Your task to perform on an android device: move a message to another label in the gmail app Image 0: 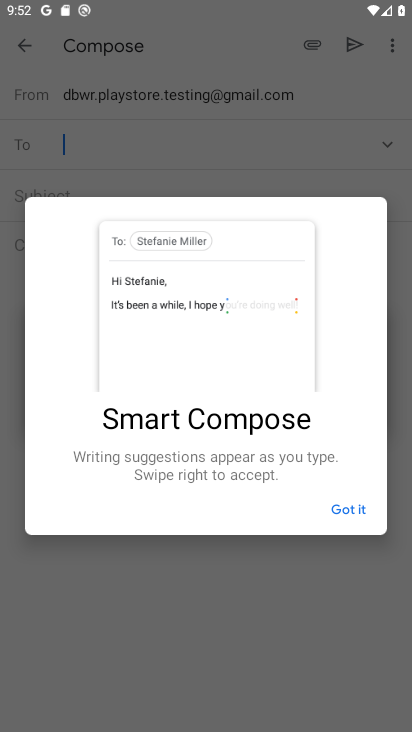
Step 0: press home button
Your task to perform on an android device: move a message to another label in the gmail app Image 1: 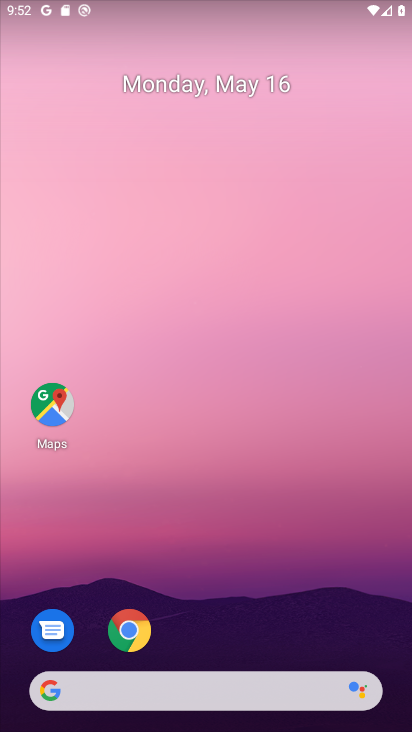
Step 1: drag from (230, 576) to (248, 87)
Your task to perform on an android device: move a message to another label in the gmail app Image 2: 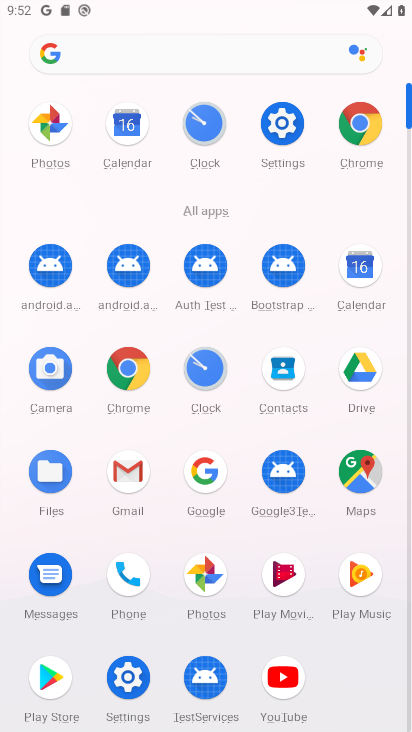
Step 2: click (138, 467)
Your task to perform on an android device: move a message to another label in the gmail app Image 3: 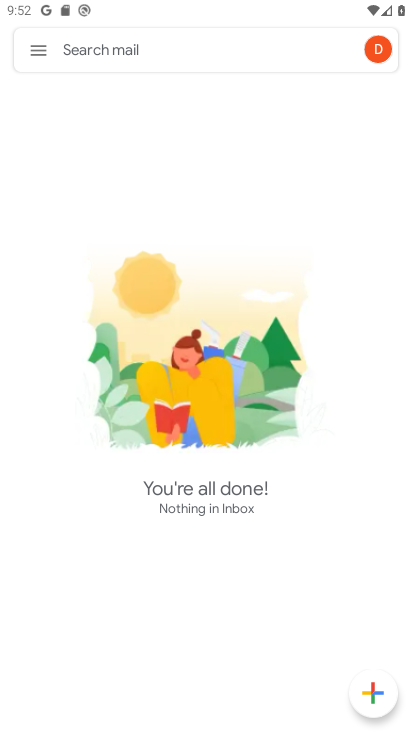
Step 3: click (32, 38)
Your task to perform on an android device: move a message to another label in the gmail app Image 4: 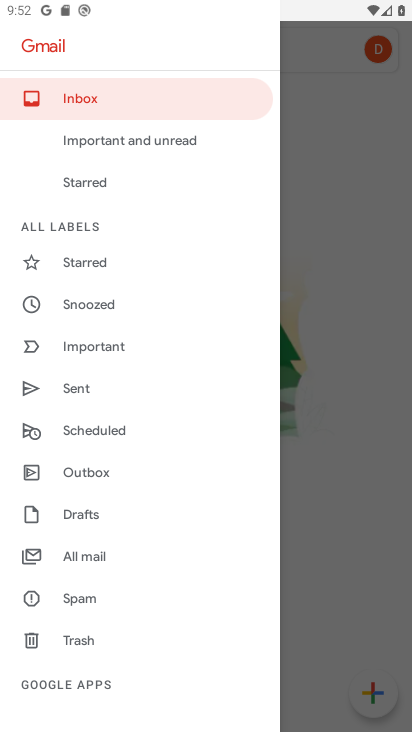
Step 4: click (82, 543)
Your task to perform on an android device: move a message to another label in the gmail app Image 5: 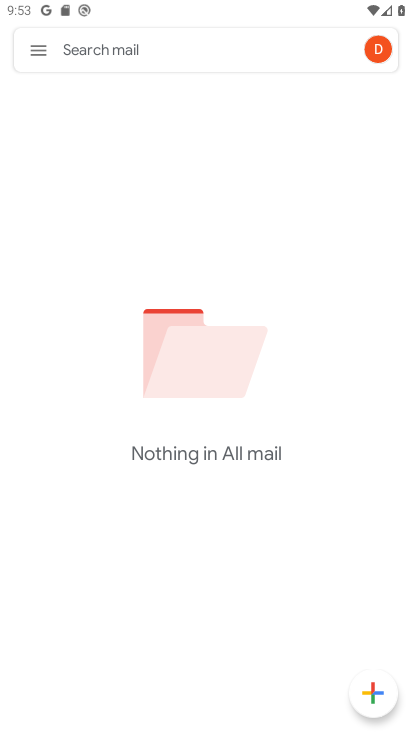
Step 5: task complete